Your task to perform on an android device: delete the emails in spam in the gmail app Image 0: 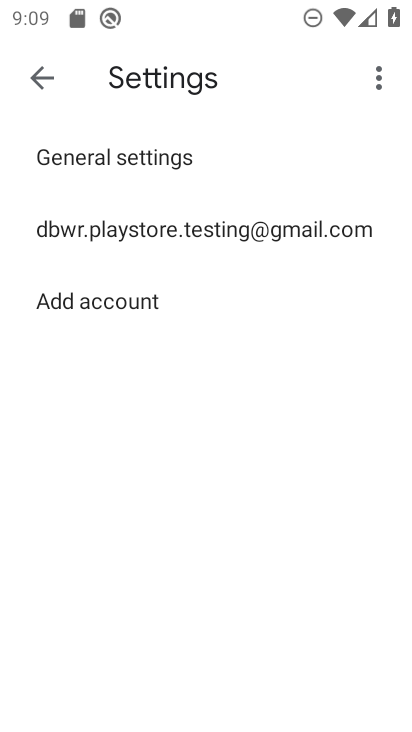
Step 0: press home button
Your task to perform on an android device: delete the emails in spam in the gmail app Image 1: 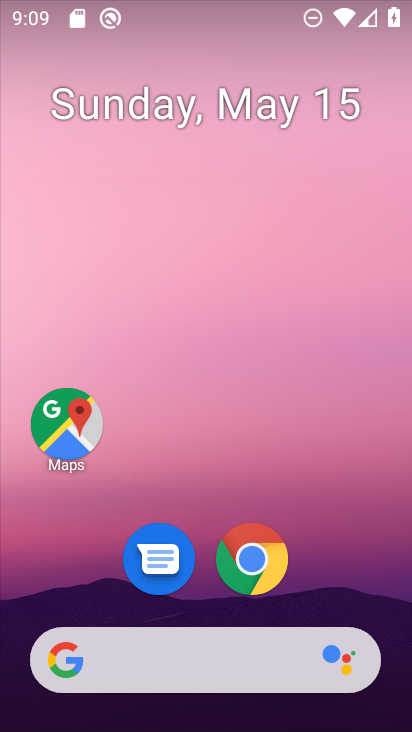
Step 1: drag from (366, 562) to (325, 114)
Your task to perform on an android device: delete the emails in spam in the gmail app Image 2: 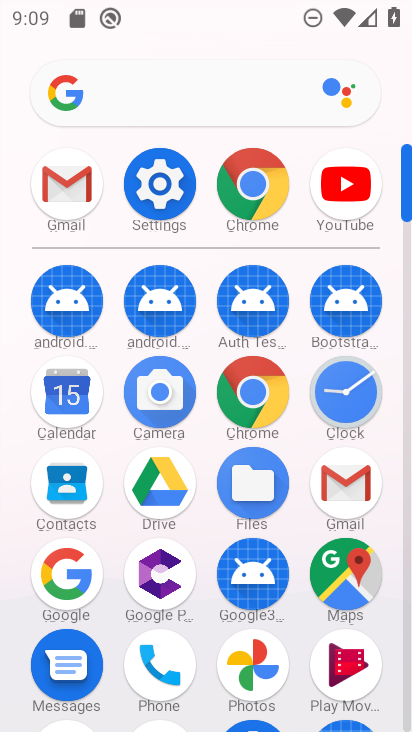
Step 2: click (80, 189)
Your task to perform on an android device: delete the emails in spam in the gmail app Image 3: 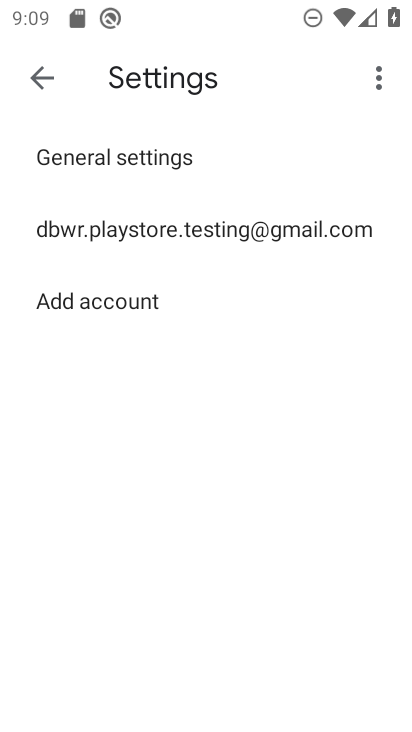
Step 3: click (80, 189)
Your task to perform on an android device: delete the emails in spam in the gmail app Image 4: 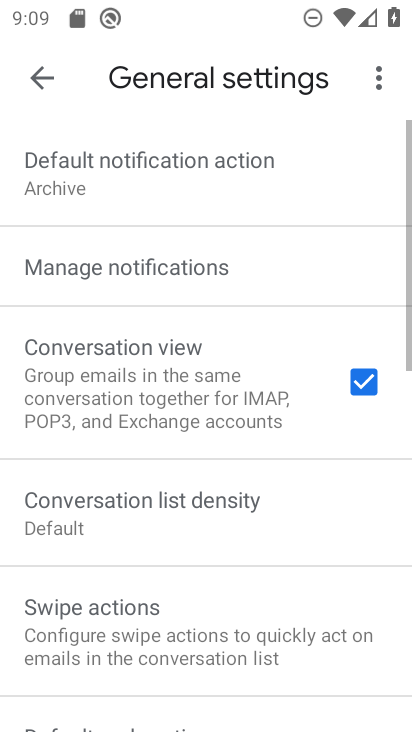
Step 4: click (38, 69)
Your task to perform on an android device: delete the emails in spam in the gmail app Image 5: 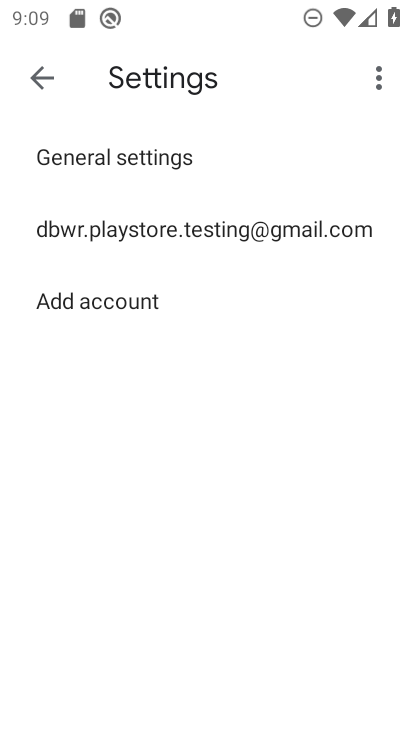
Step 5: click (39, 69)
Your task to perform on an android device: delete the emails in spam in the gmail app Image 6: 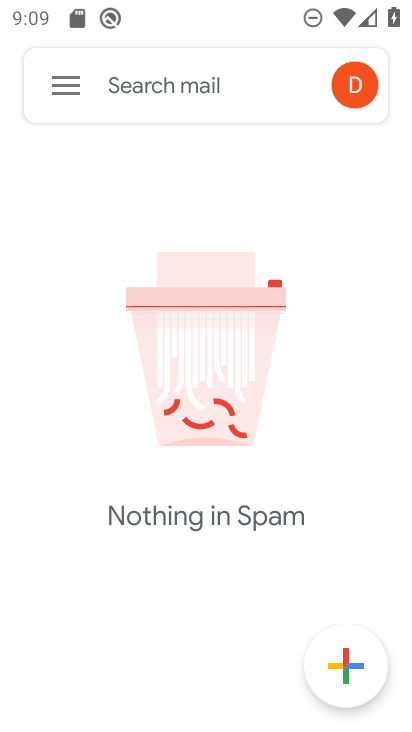
Step 6: click (52, 107)
Your task to perform on an android device: delete the emails in spam in the gmail app Image 7: 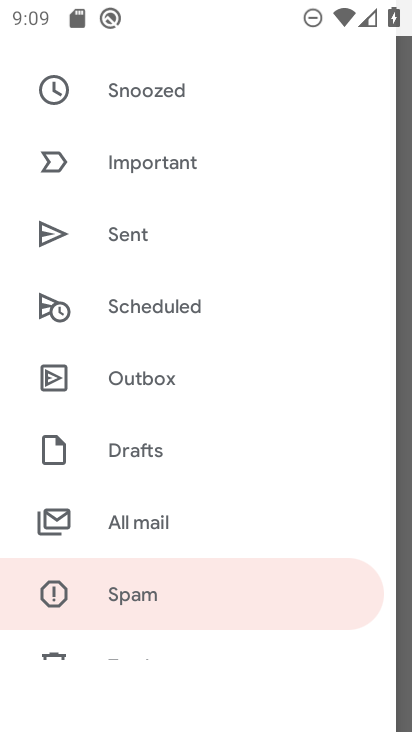
Step 7: task complete